Your task to perform on an android device: turn notification dots on Image 0: 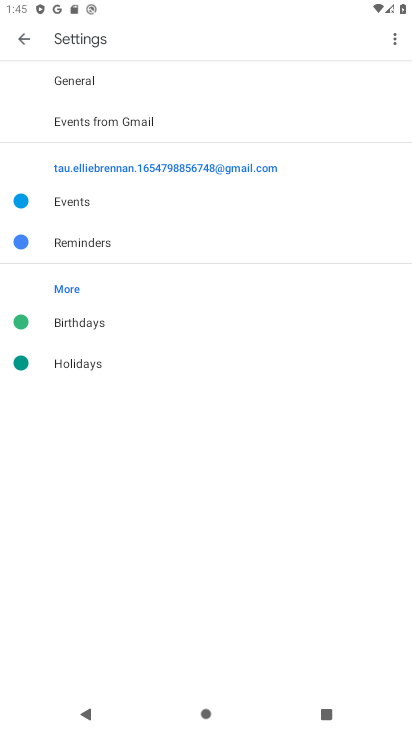
Step 0: drag from (196, 8) to (214, 625)
Your task to perform on an android device: turn notification dots on Image 1: 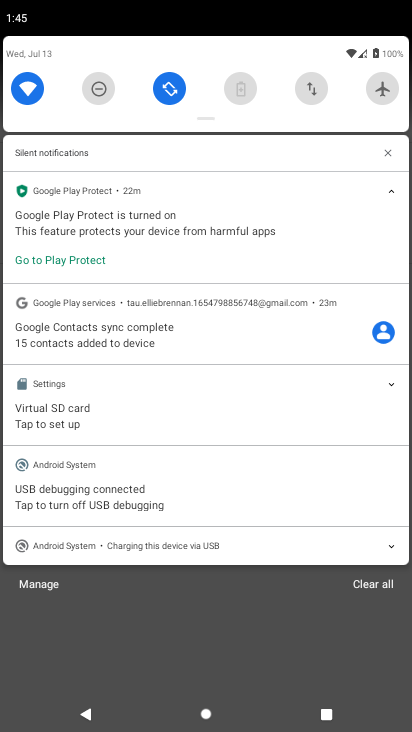
Step 1: drag from (188, 59) to (228, 506)
Your task to perform on an android device: turn notification dots on Image 2: 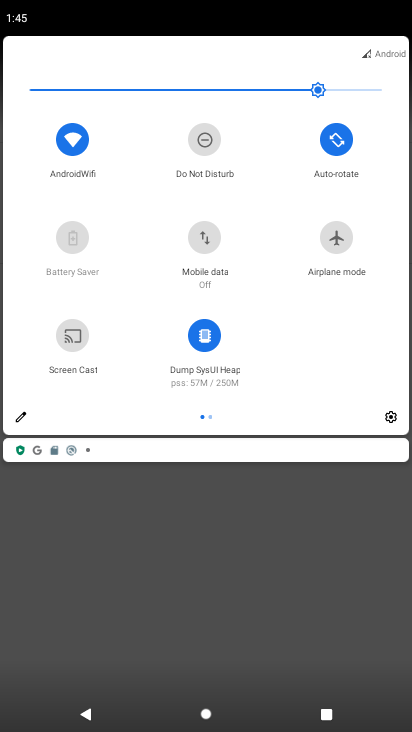
Step 2: click (389, 410)
Your task to perform on an android device: turn notification dots on Image 3: 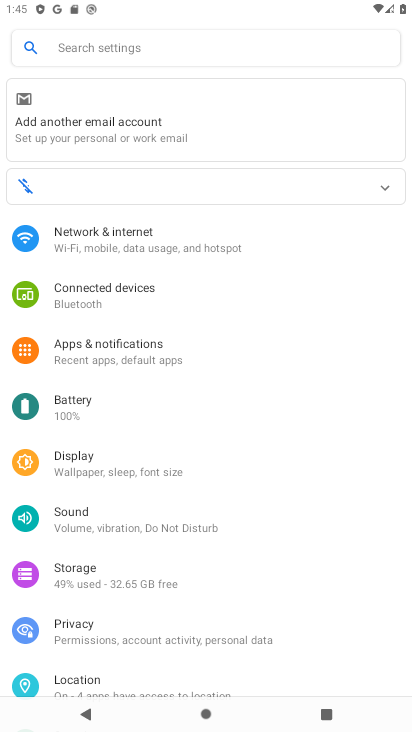
Step 3: click (136, 355)
Your task to perform on an android device: turn notification dots on Image 4: 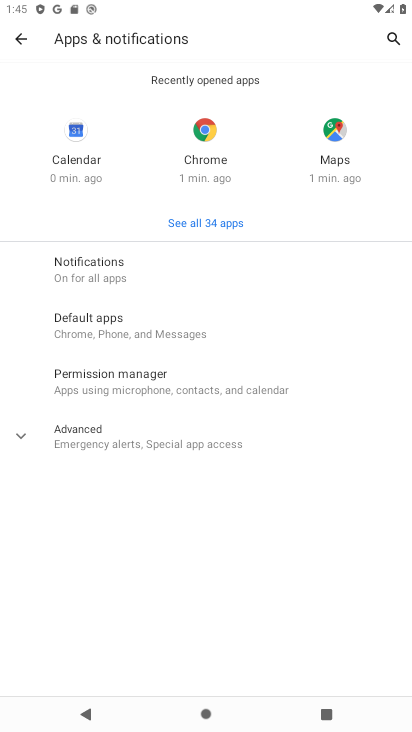
Step 4: click (85, 267)
Your task to perform on an android device: turn notification dots on Image 5: 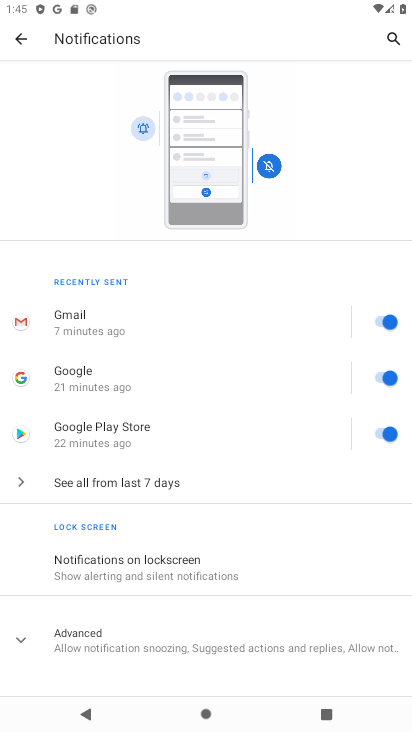
Step 5: click (124, 560)
Your task to perform on an android device: turn notification dots on Image 6: 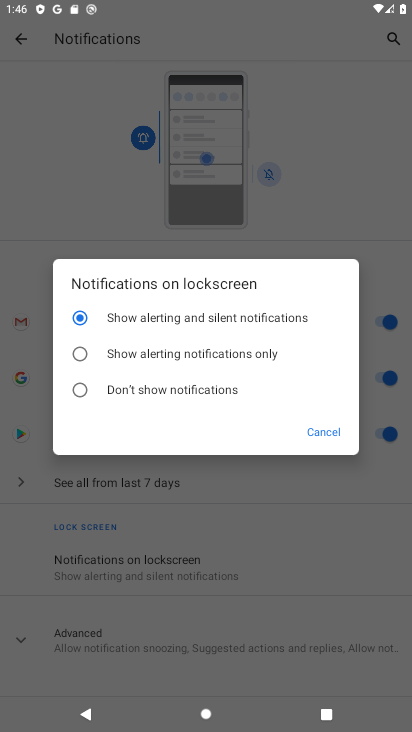
Step 6: click (332, 428)
Your task to perform on an android device: turn notification dots on Image 7: 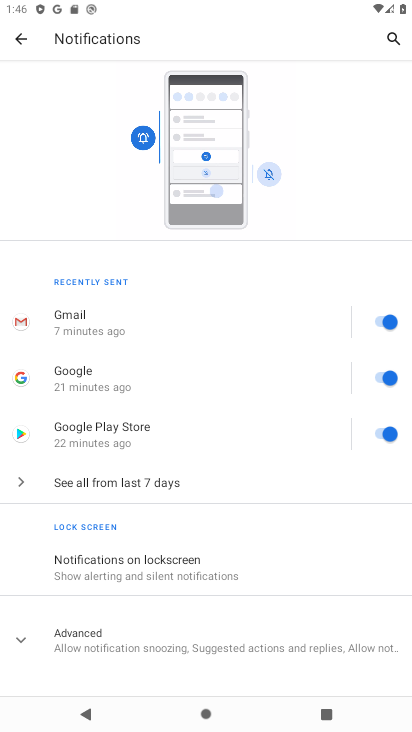
Step 7: click (156, 664)
Your task to perform on an android device: turn notification dots on Image 8: 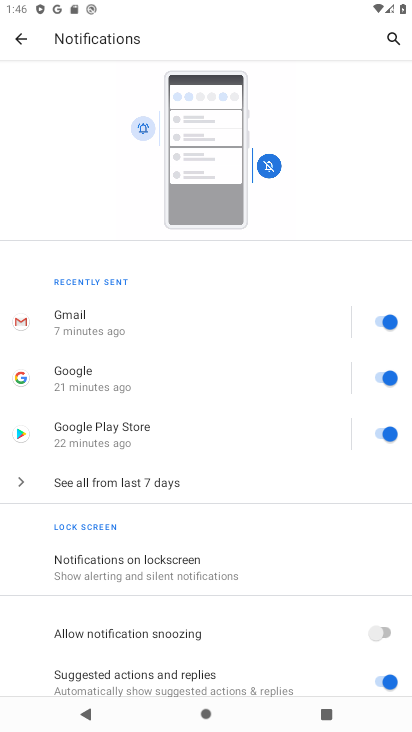
Step 8: task complete